Your task to perform on an android device: visit the assistant section in the google photos Image 0: 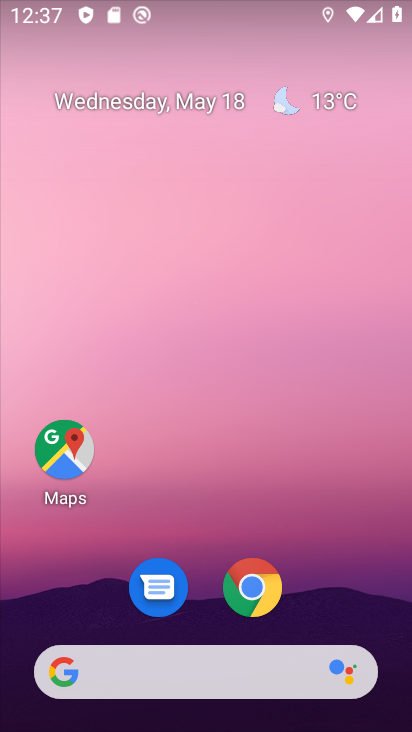
Step 0: drag from (192, 610) to (281, 162)
Your task to perform on an android device: visit the assistant section in the google photos Image 1: 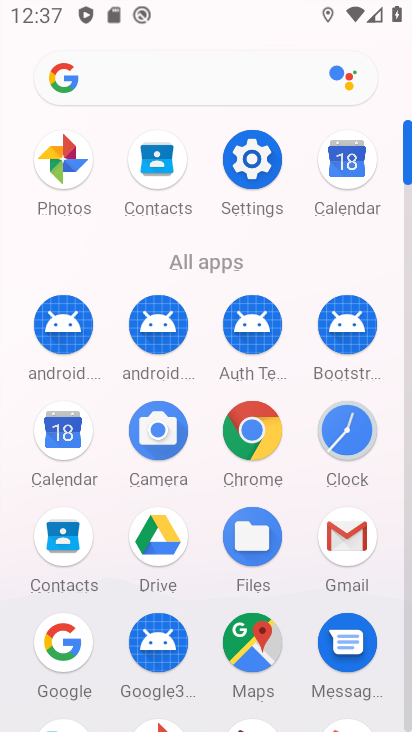
Step 1: drag from (244, 692) to (288, 149)
Your task to perform on an android device: visit the assistant section in the google photos Image 2: 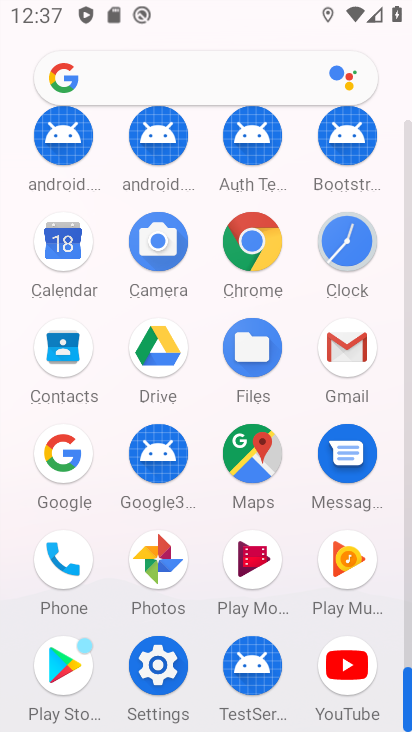
Step 2: click (151, 563)
Your task to perform on an android device: visit the assistant section in the google photos Image 3: 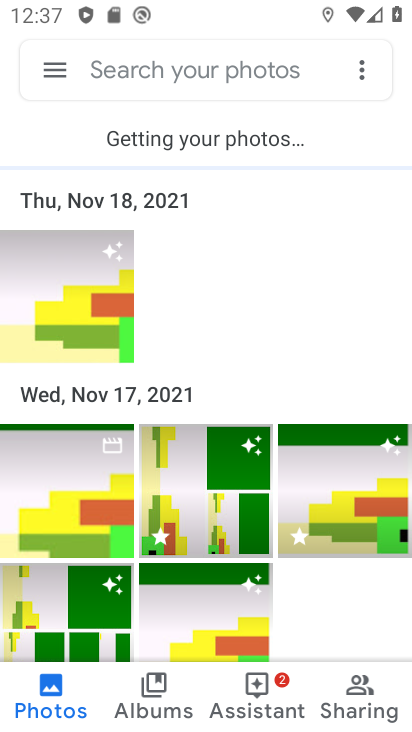
Step 3: click (262, 713)
Your task to perform on an android device: visit the assistant section in the google photos Image 4: 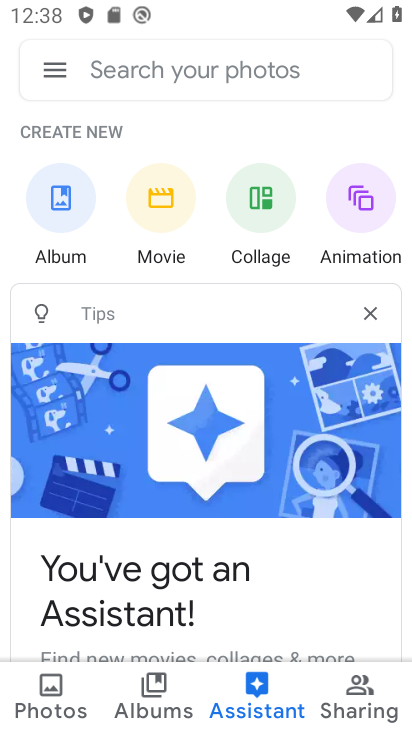
Step 4: task complete